Your task to perform on an android device: Empty the shopping cart on newegg.com. Add asus zenbook to the cart on newegg.com, then select checkout. Image 0: 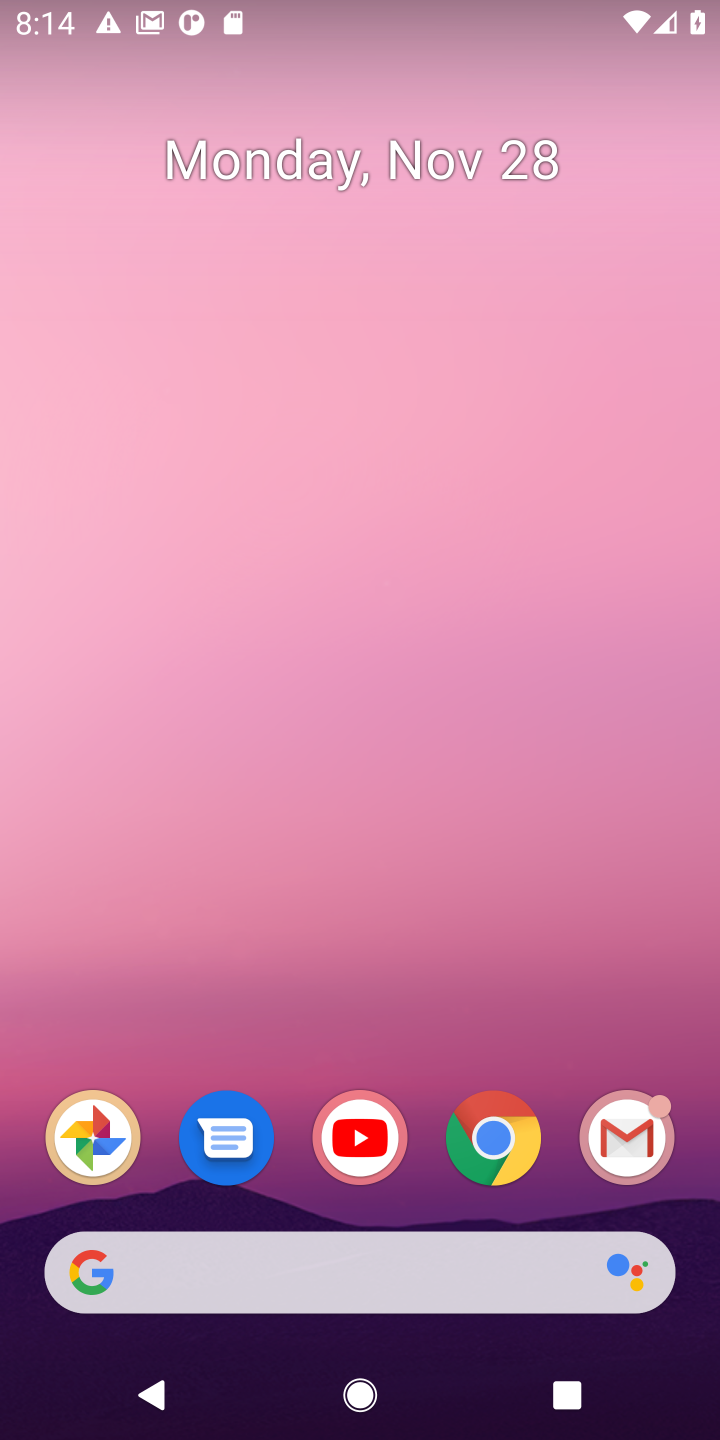
Step 0: click (512, 1139)
Your task to perform on an android device: Empty the shopping cart on newegg.com. Add asus zenbook to the cart on newegg.com, then select checkout. Image 1: 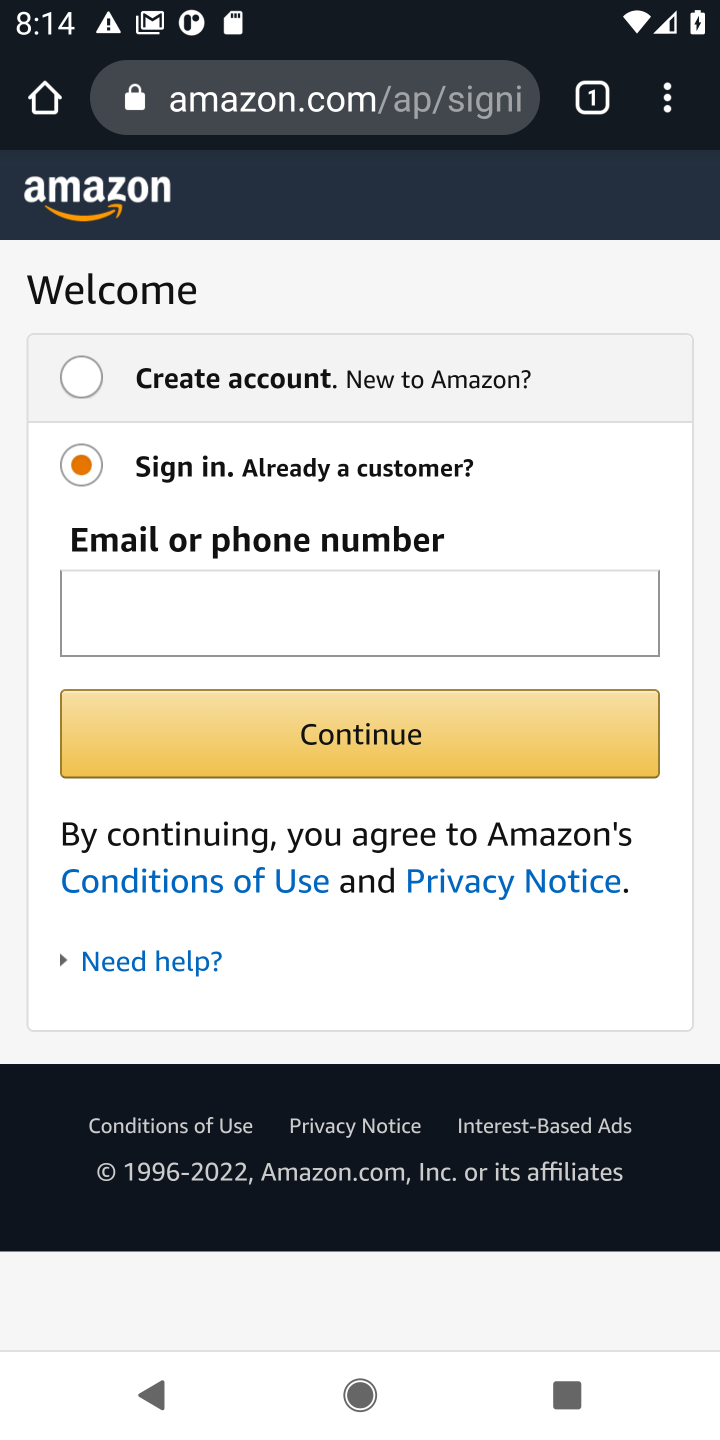
Step 1: click (262, 117)
Your task to perform on an android device: Empty the shopping cart on newegg.com. Add asus zenbook to the cart on newegg.com, then select checkout. Image 2: 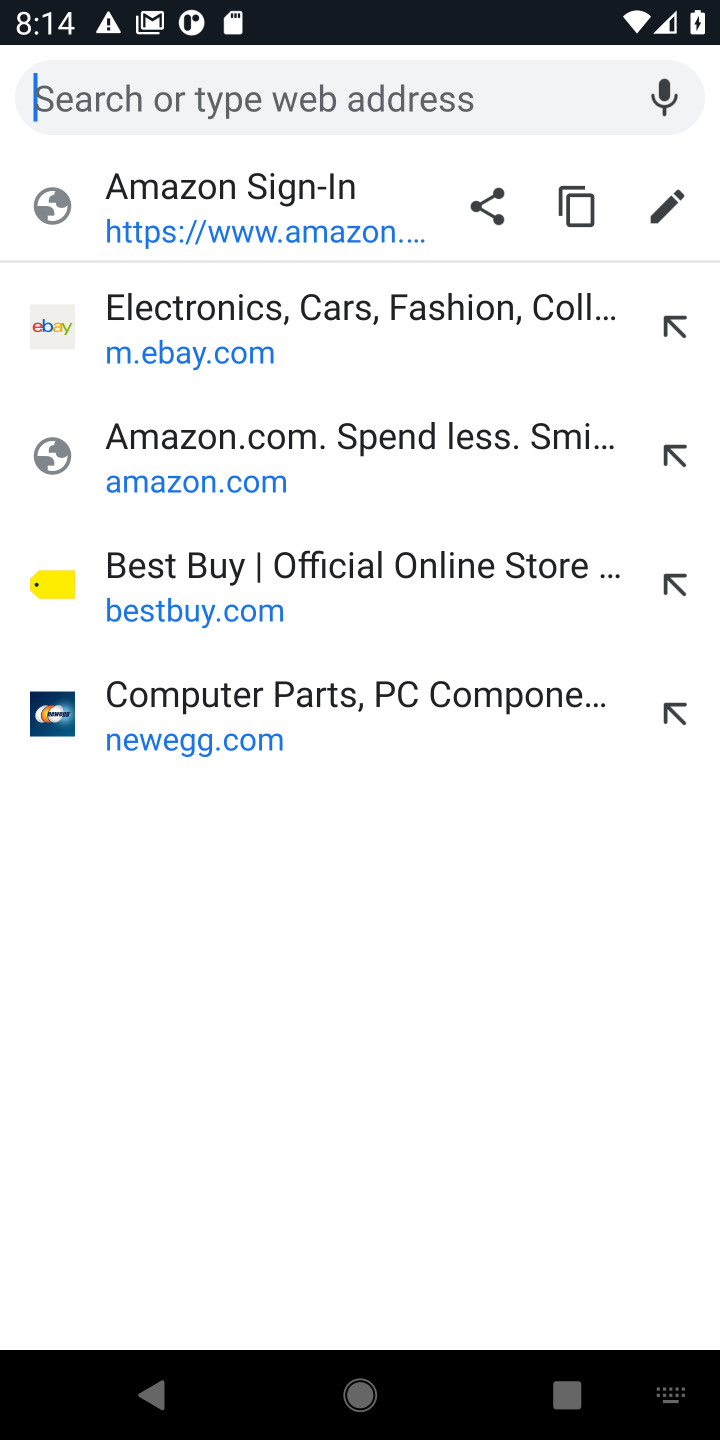
Step 2: click (124, 731)
Your task to perform on an android device: Empty the shopping cart on newegg.com. Add asus zenbook to the cart on newegg.com, then select checkout. Image 3: 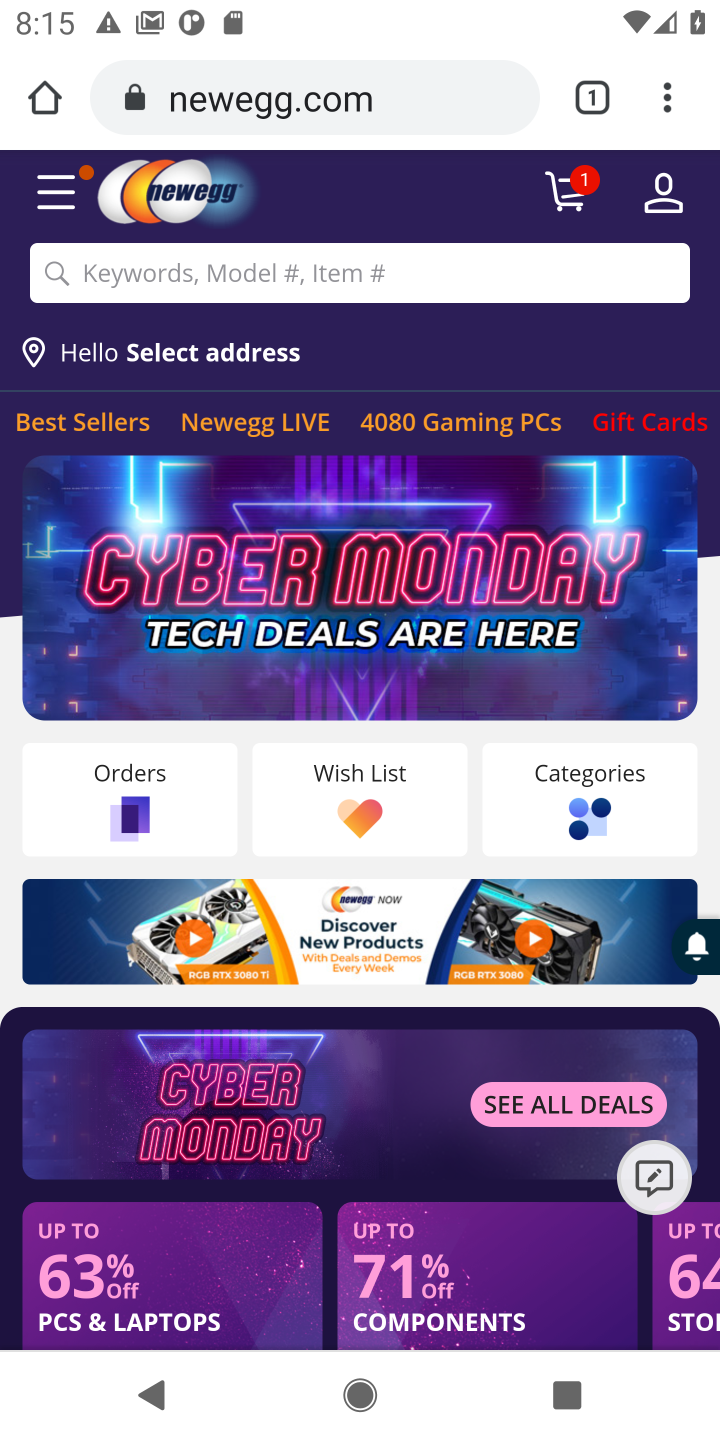
Step 3: click (561, 199)
Your task to perform on an android device: Empty the shopping cart on newegg.com. Add asus zenbook to the cart on newegg.com, then select checkout. Image 4: 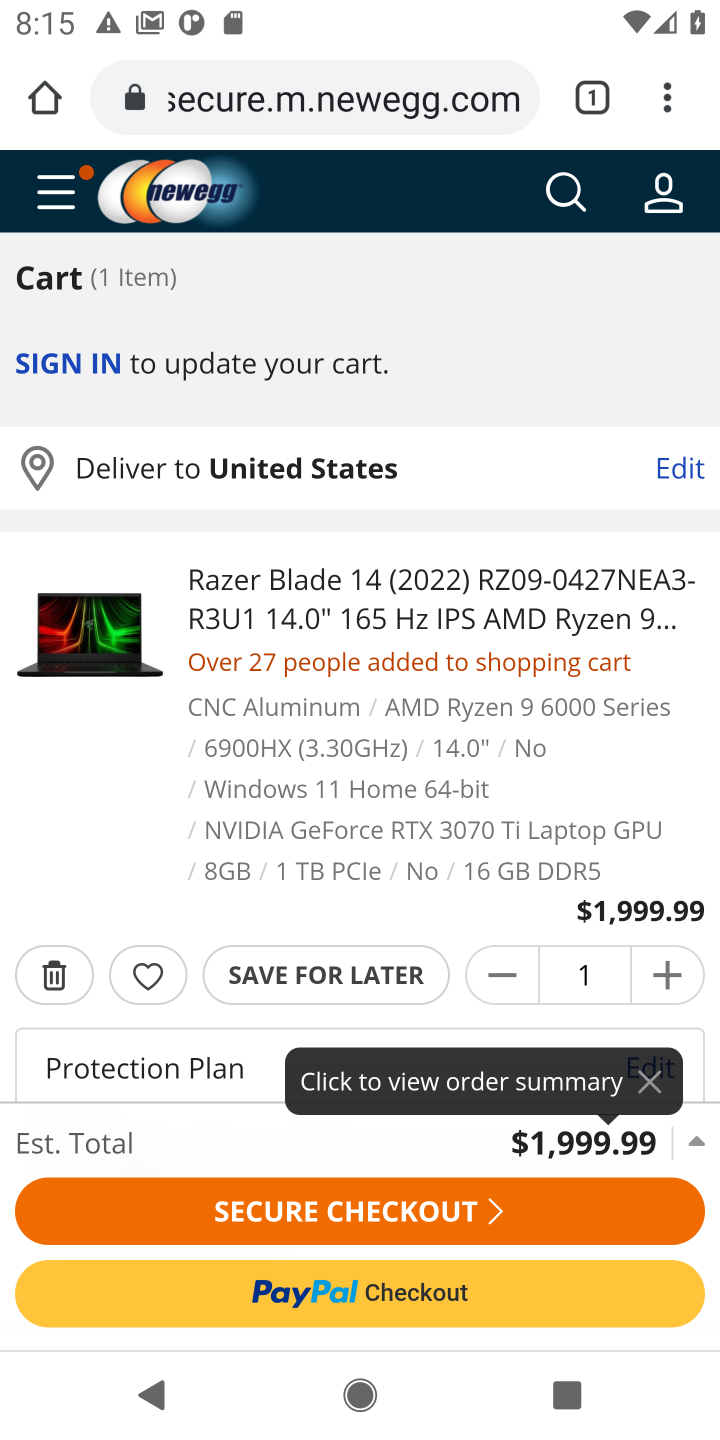
Step 4: click (57, 974)
Your task to perform on an android device: Empty the shopping cart on newegg.com. Add asus zenbook to the cart on newegg.com, then select checkout. Image 5: 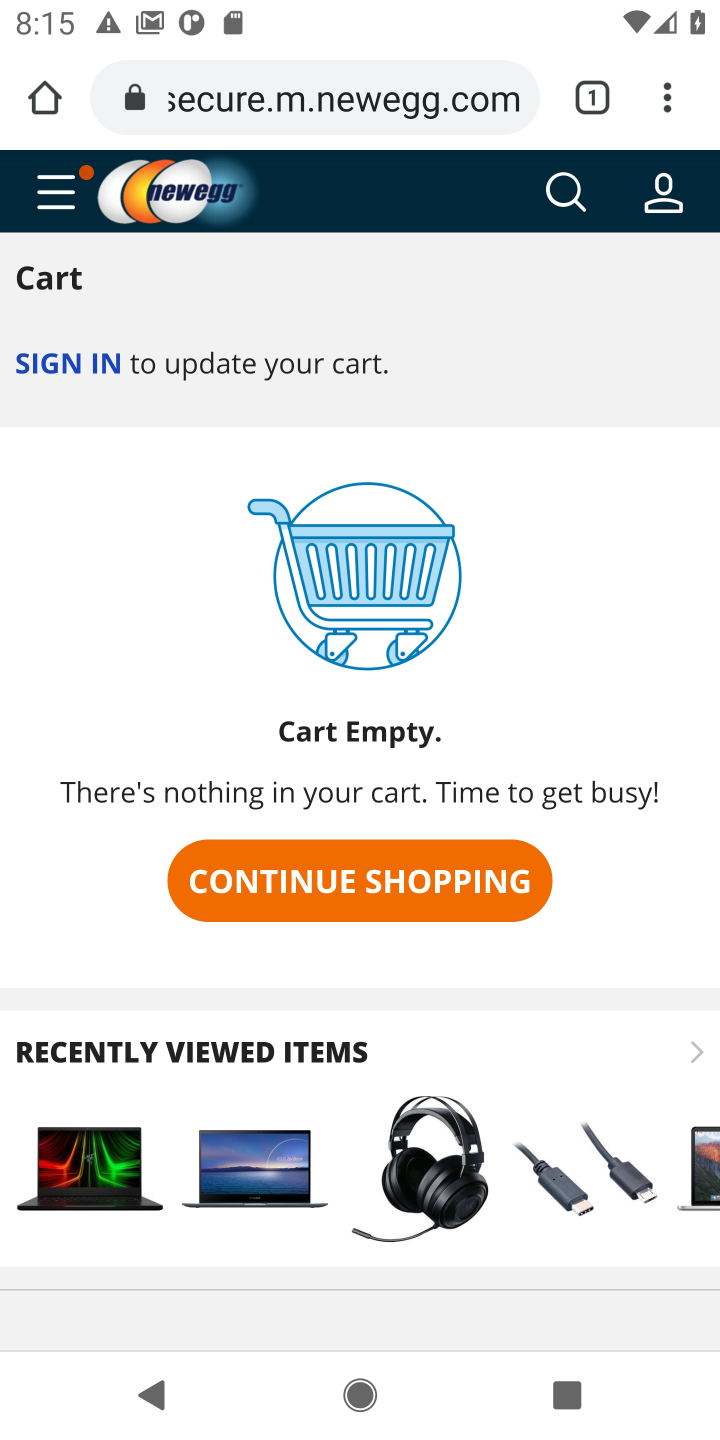
Step 5: click (562, 210)
Your task to perform on an android device: Empty the shopping cart on newegg.com. Add asus zenbook to the cart on newegg.com, then select checkout. Image 6: 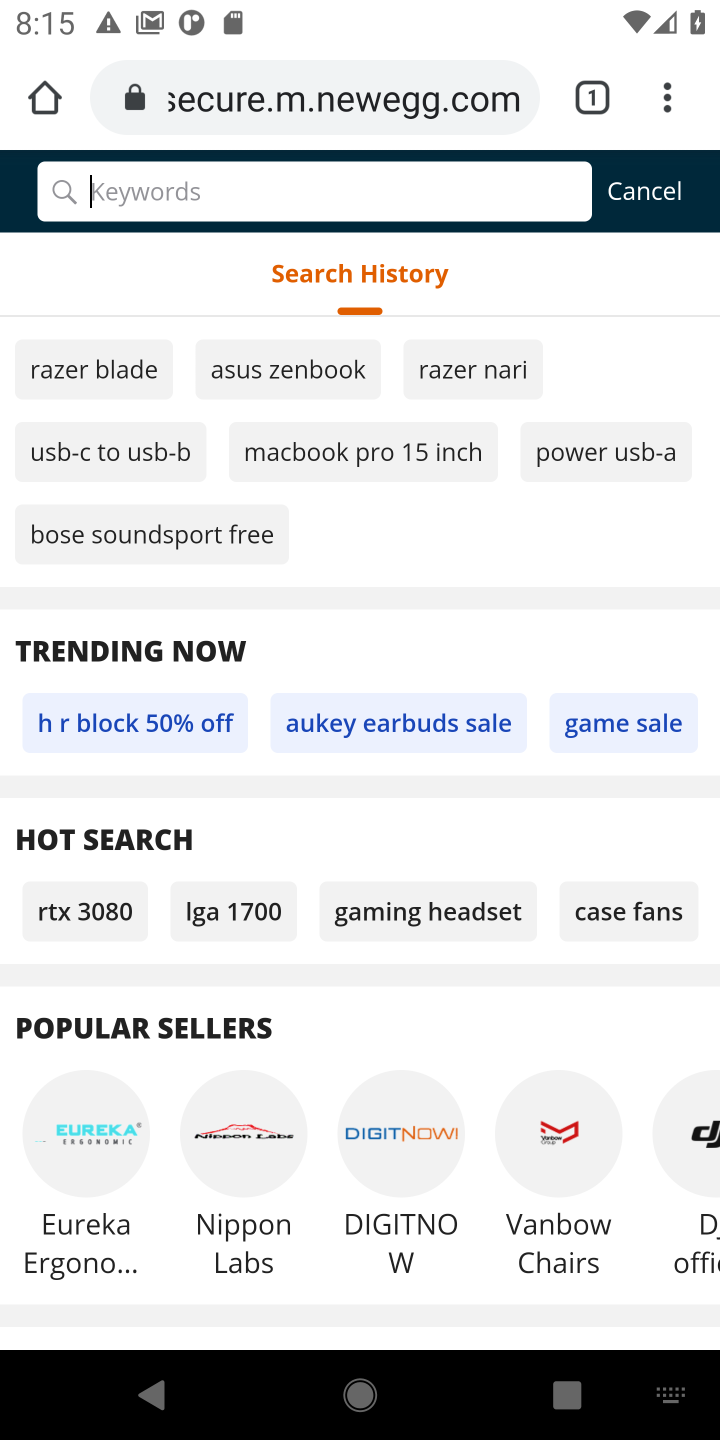
Step 6: type "asus zenbook"
Your task to perform on an android device: Empty the shopping cart on newegg.com. Add asus zenbook to the cart on newegg.com, then select checkout. Image 7: 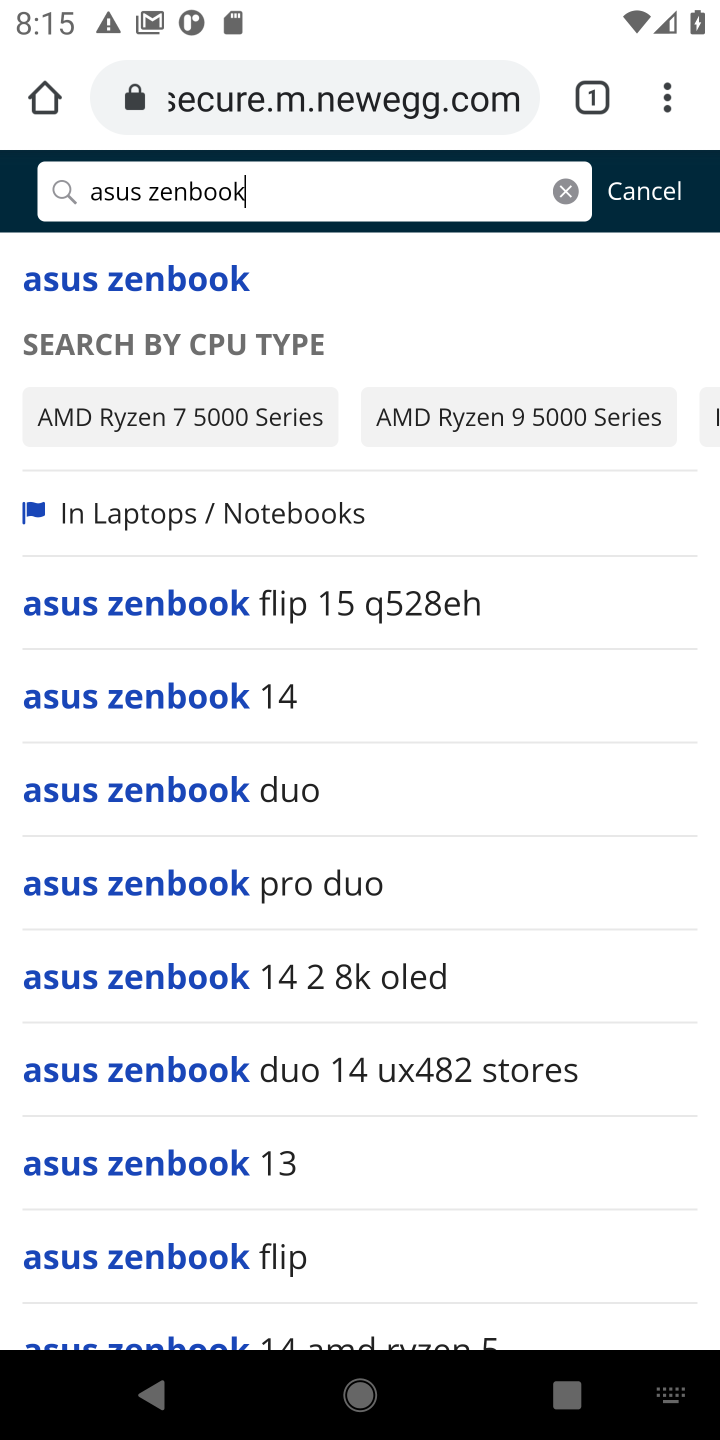
Step 7: click (169, 282)
Your task to perform on an android device: Empty the shopping cart on newegg.com. Add asus zenbook to the cart on newegg.com, then select checkout. Image 8: 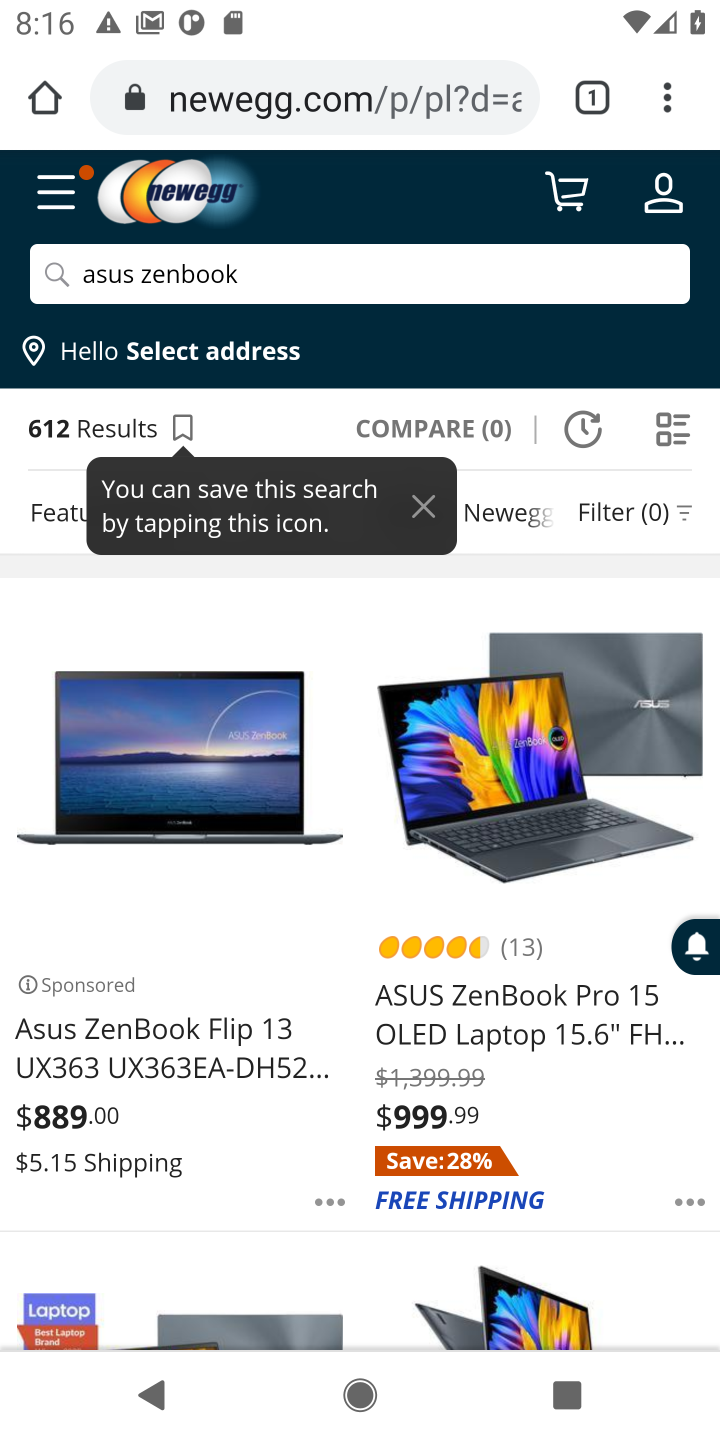
Step 8: click (108, 1030)
Your task to perform on an android device: Empty the shopping cart on newegg.com. Add asus zenbook to the cart on newegg.com, then select checkout. Image 9: 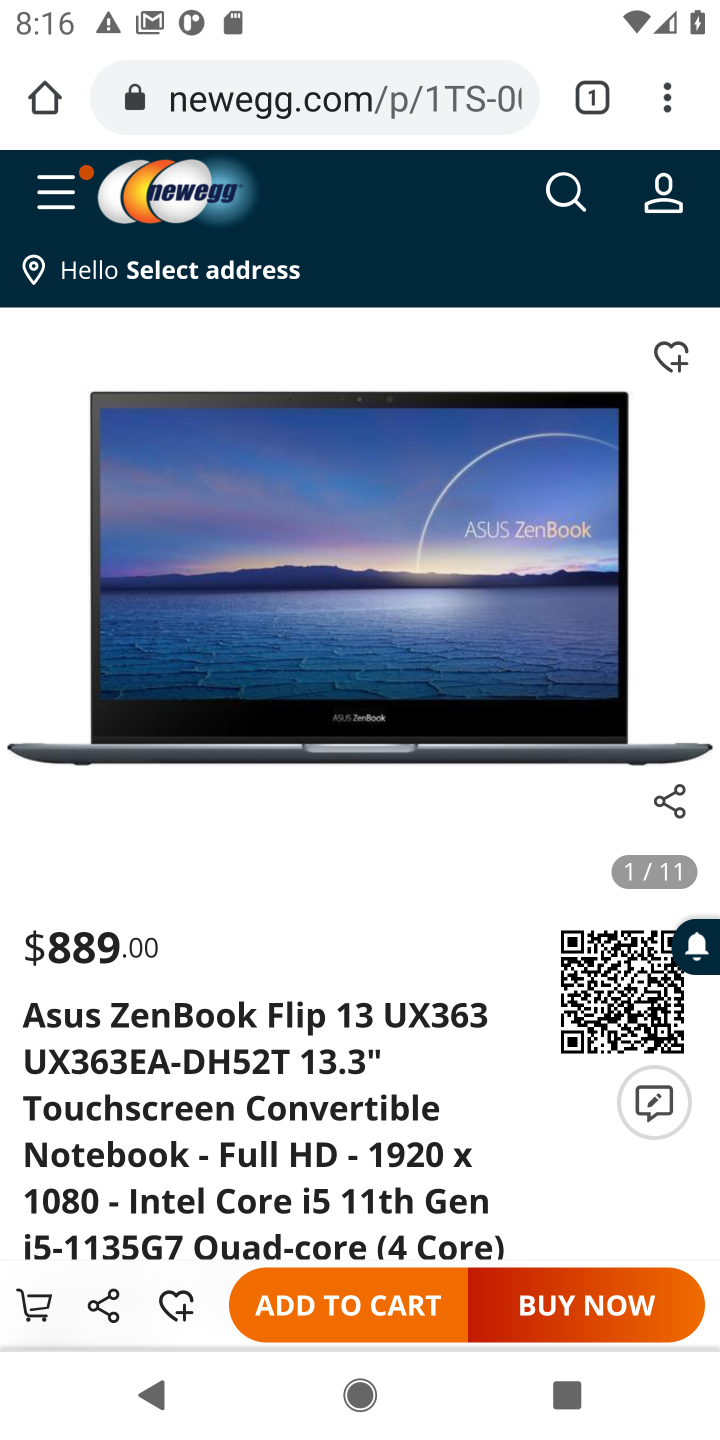
Step 9: click (314, 1312)
Your task to perform on an android device: Empty the shopping cart on newegg.com. Add asus zenbook to the cart on newegg.com, then select checkout. Image 10: 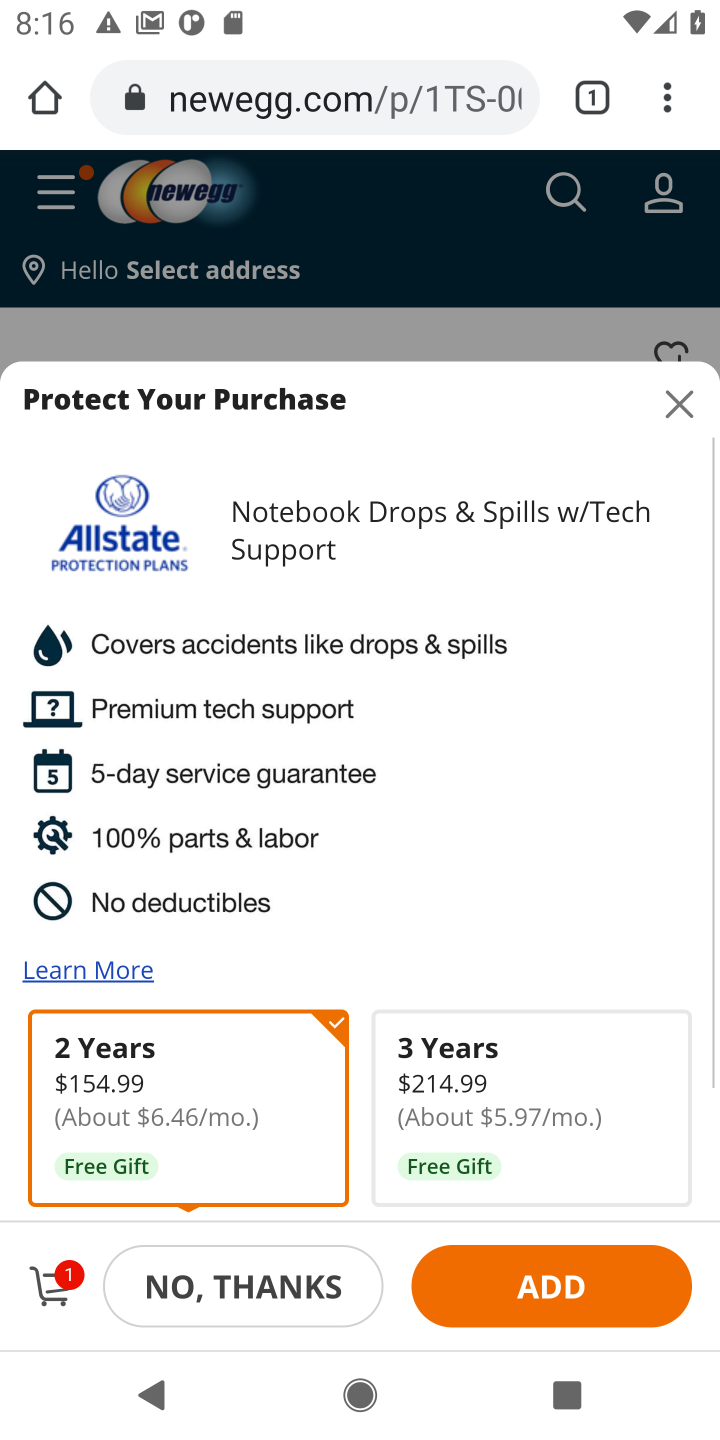
Step 10: click (56, 1284)
Your task to perform on an android device: Empty the shopping cart on newegg.com. Add asus zenbook to the cart on newegg.com, then select checkout. Image 11: 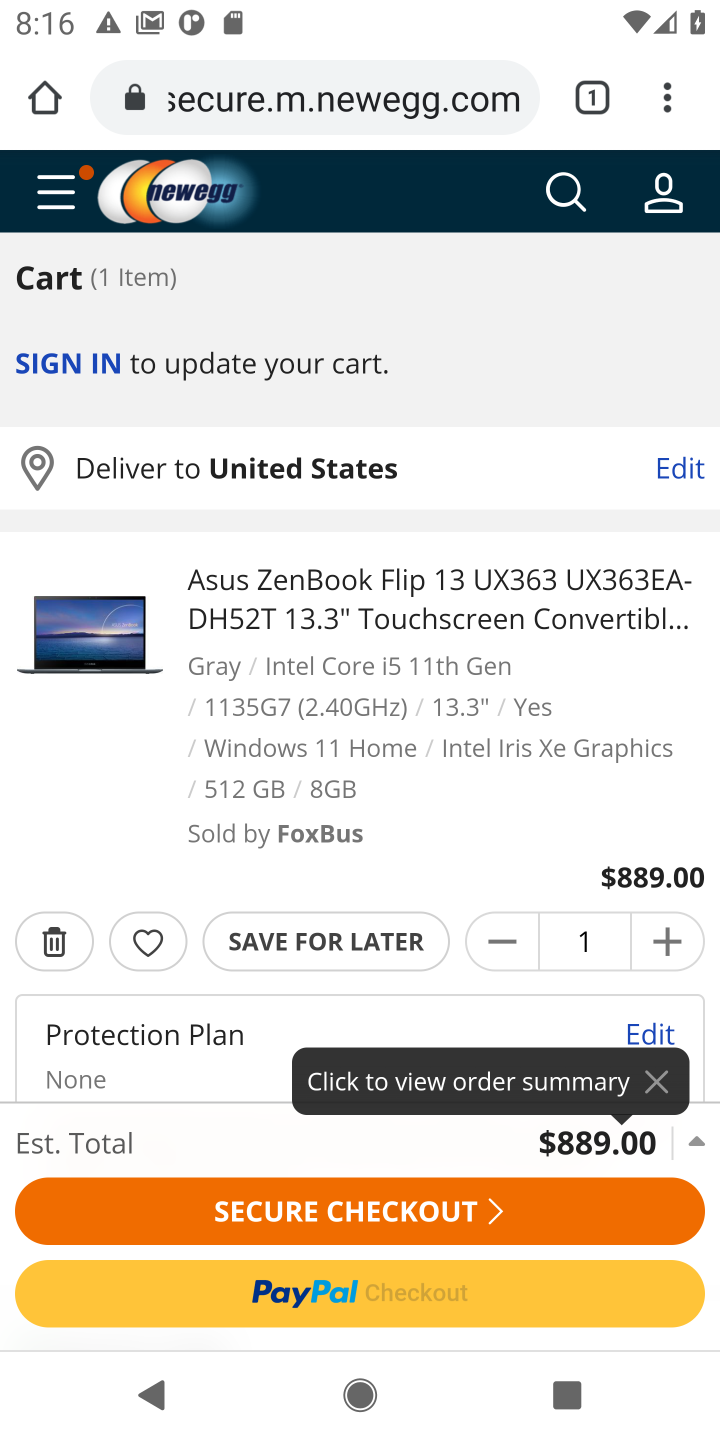
Step 11: click (345, 1211)
Your task to perform on an android device: Empty the shopping cart on newegg.com. Add asus zenbook to the cart on newegg.com, then select checkout. Image 12: 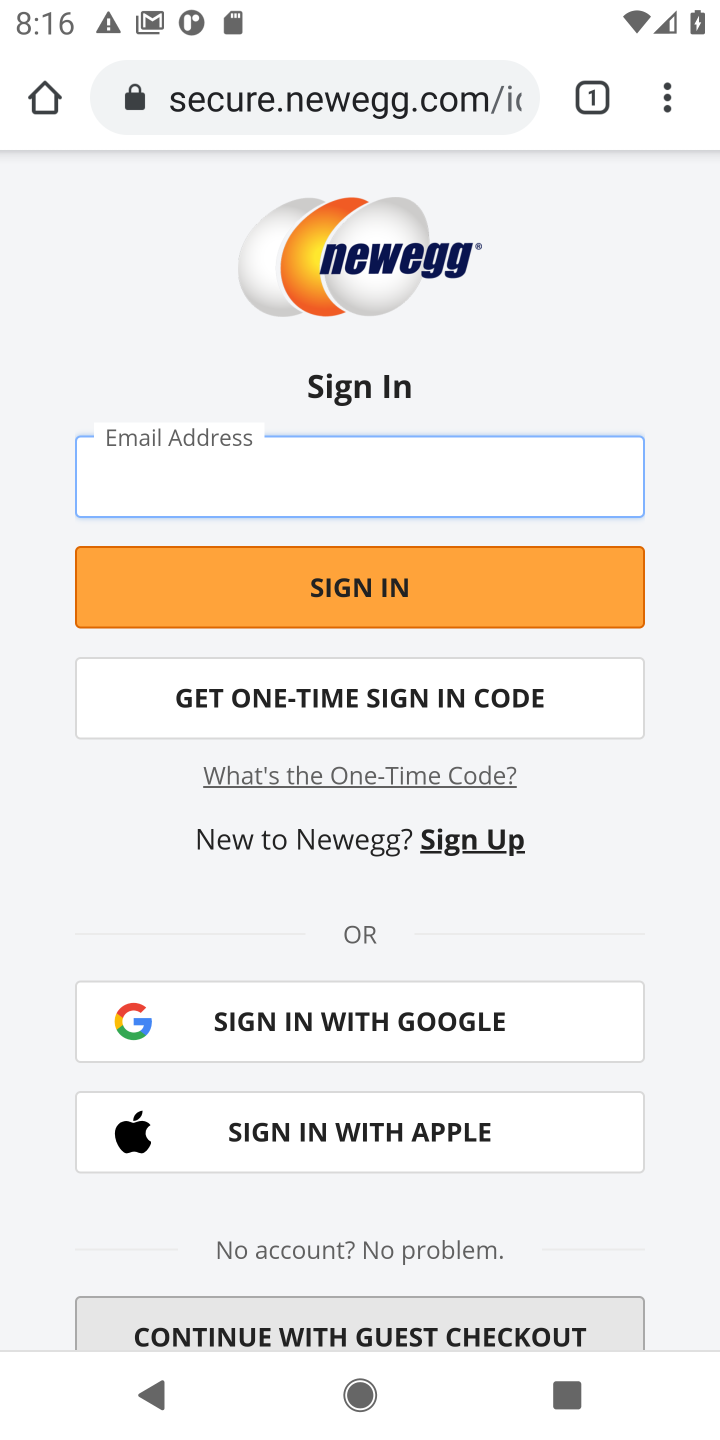
Step 12: task complete